Your task to perform on an android device: empty trash in the gmail app Image 0: 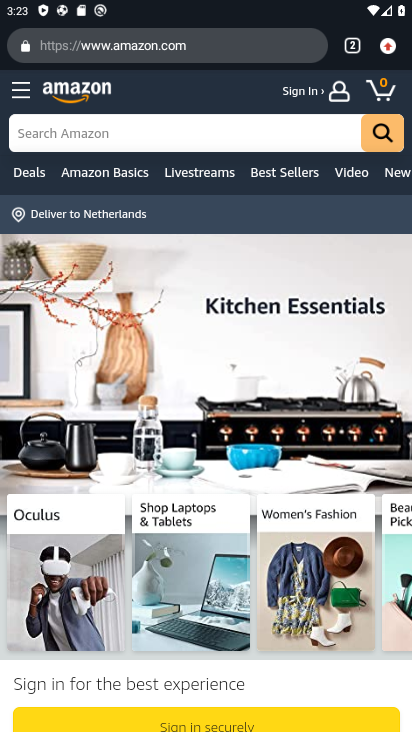
Step 0: press home button
Your task to perform on an android device: empty trash in the gmail app Image 1: 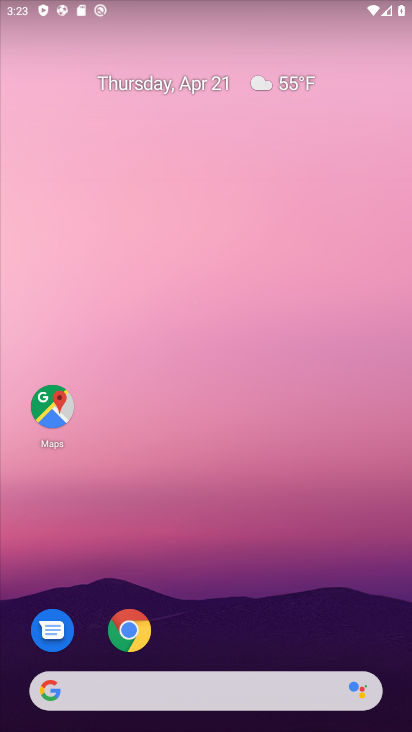
Step 1: drag from (327, 605) to (313, 11)
Your task to perform on an android device: empty trash in the gmail app Image 2: 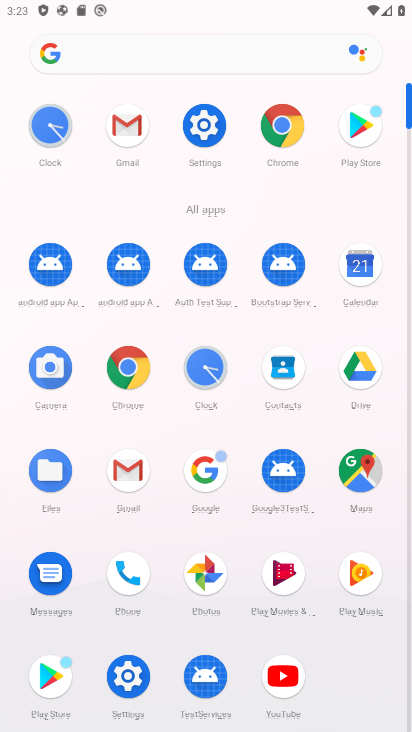
Step 2: click (125, 172)
Your task to perform on an android device: empty trash in the gmail app Image 3: 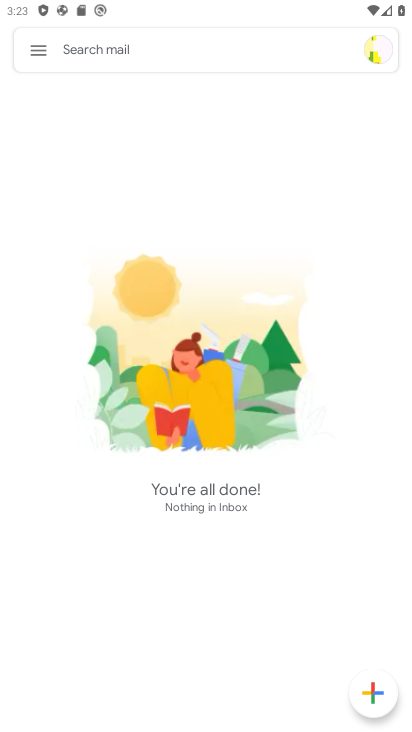
Step 3: click (30, 62)
Your task to perform on an android device: empty trash in the gmail app Image 4: 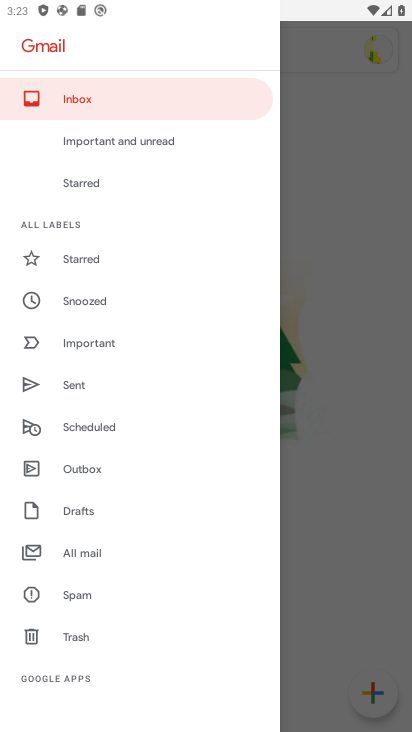
Step 4: click (72, 638)
Your task to perform on an android device: empty trash in the gmail app Image 5: 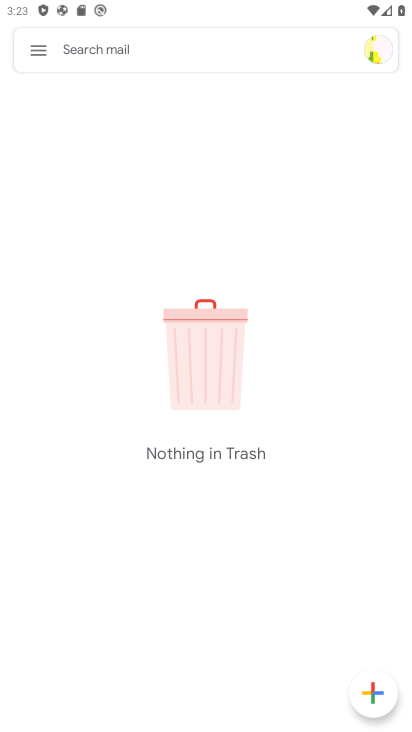
Step 5: task complete